Your task to perform on an android device: check the backup settings in the google photos Image 0: 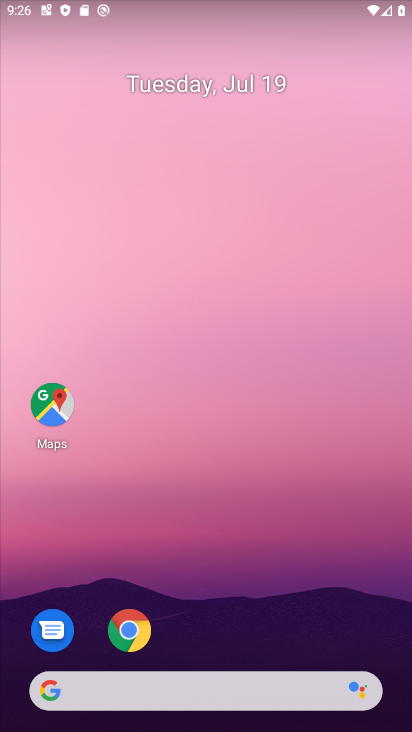
Step 0: drag from (212, 648) to (220, 137)
Your task to perform on an android device: check the backup settings in the google photos Image 1: 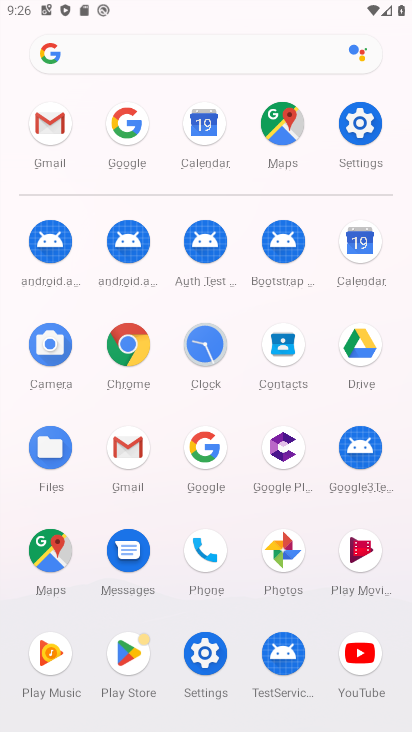
Step 1: click (279, 555)
Your task to perform on an android device: check the backup settings in the google photos Image 2: 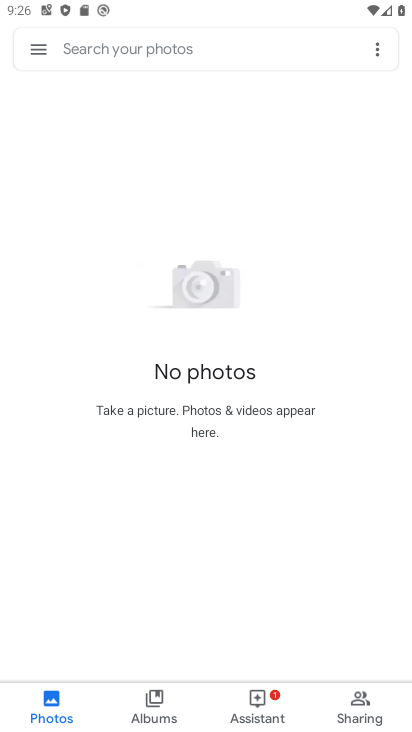
Step 2: click (38, 47)
Your task to perform on an android device: check the backup settings in the google photos Image 3: 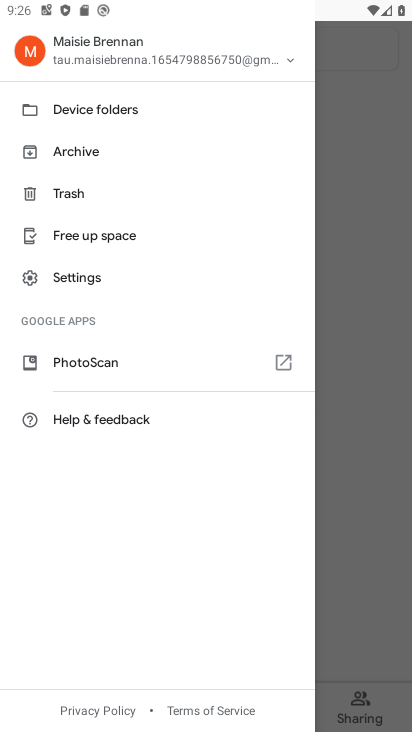
Step 3: click (81, 282)
Your task to perform on an android device: check the backup settings in the google photos Image 4: 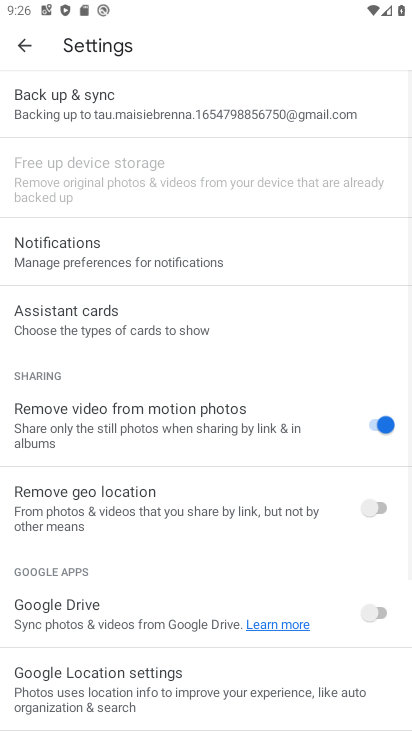
Step 4: click (153, 96)
Your task to perform on an android device: check the backup settings in the google photos Image 5: 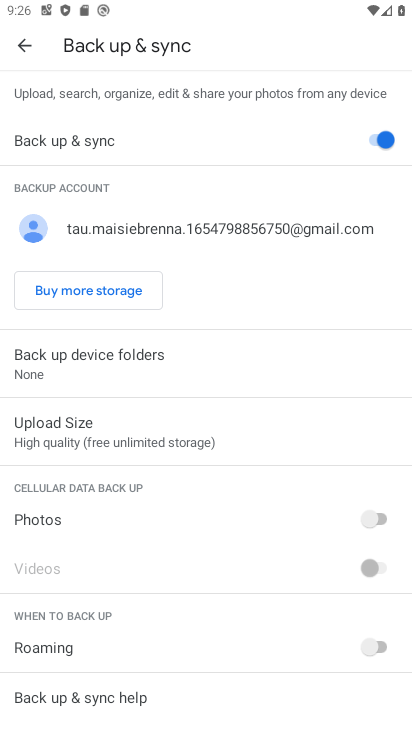
Step 5: task complete